Your task to perform on an android device: Go to internet settings Image 0: 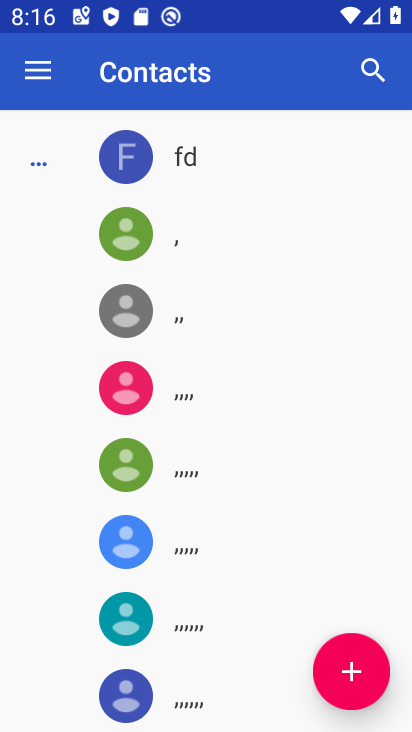
Step 0: press home button
Your task to perform on an android device: Go to internet settings Image 1: 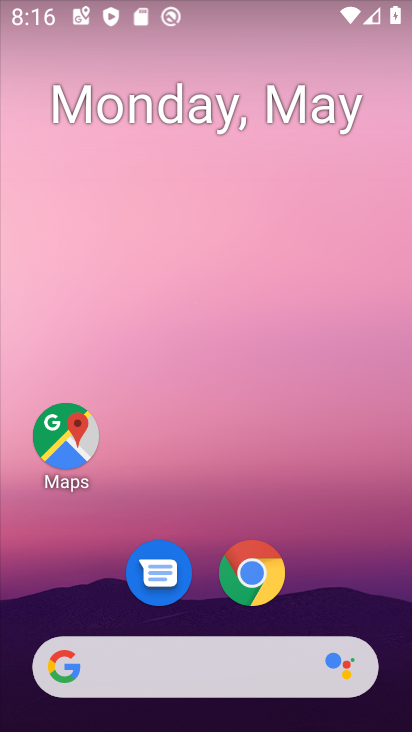
Step 1: drag from (336, 589) to (288, 143)
Your task to perform on an android device: Go to internet settings Image 2: 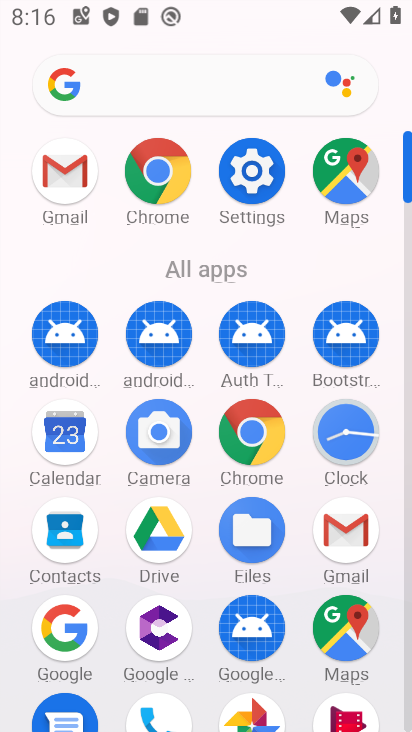
Step 2: click (264, 232)
Your task to perform on an android device: Go to internet settings Image 3: 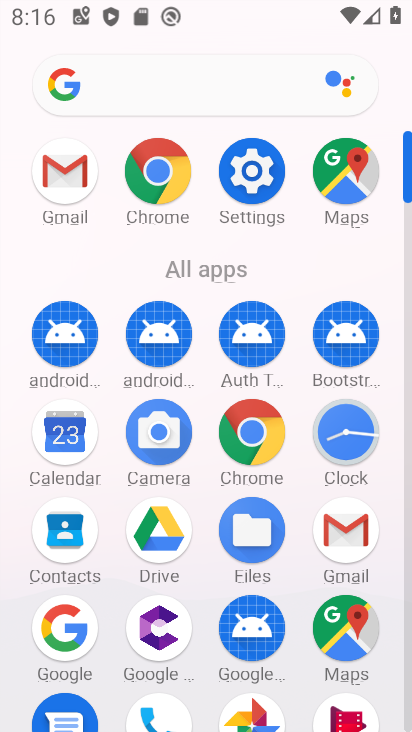
Step 3: click (264, 211)
Your task to perform on an android device: Go to internet settings Image 4: 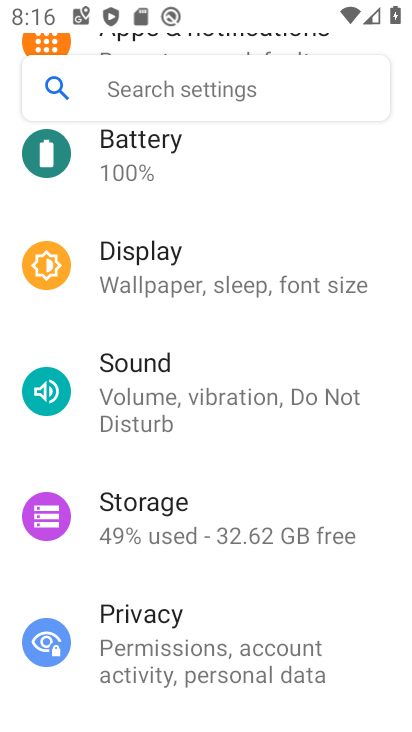
Step 4: drag from (171, 307) to (169, 681)
Your task to perform on an android device: Go to internet settings Image 5: 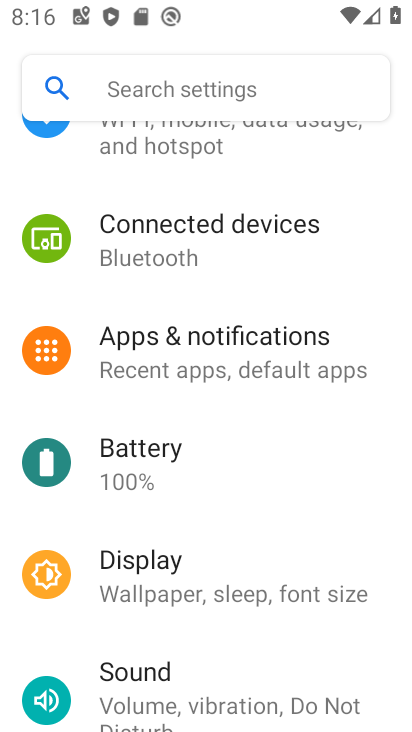
Step 5: click (240, 174)
Your task to perform on an android device: Go to internet settings Image 6: 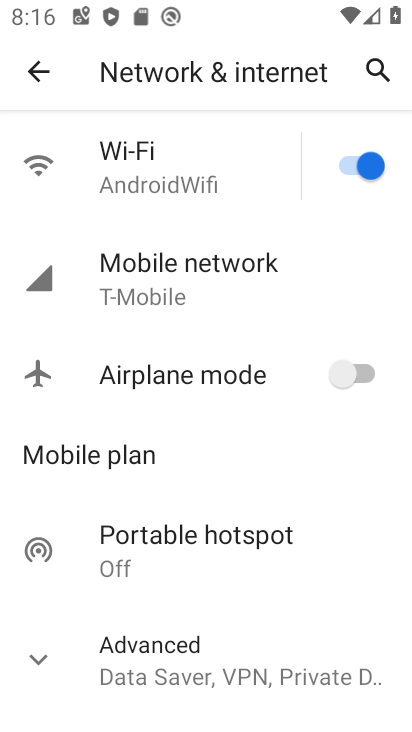
Step 6: task complete